Your task to perform on an android device: clear history in the chrome app Image 0: 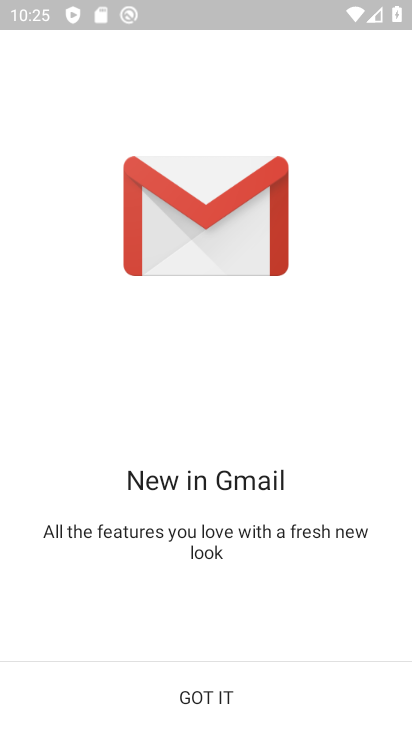
Step 0: press home button
Your task to perform on an android device: clear history in the chrome app Image 1: 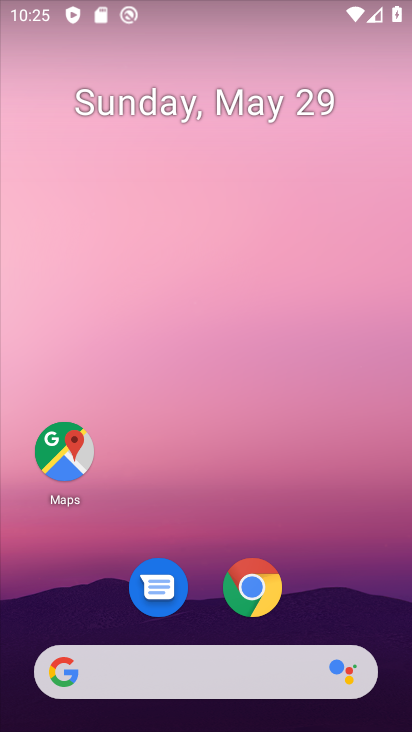
Step 1: click (264, 599)
Your task to perform on an android device: clear history in the chrome app Image 2: 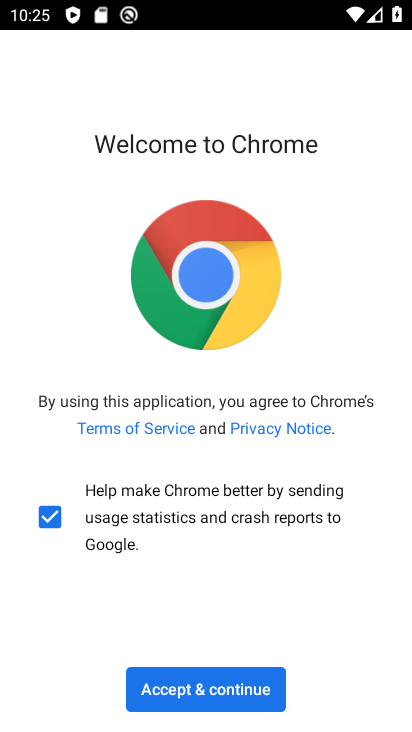
Step 2: click (214, 686)
Your task to perform on an android device: clear history in the chrome app Image 3: 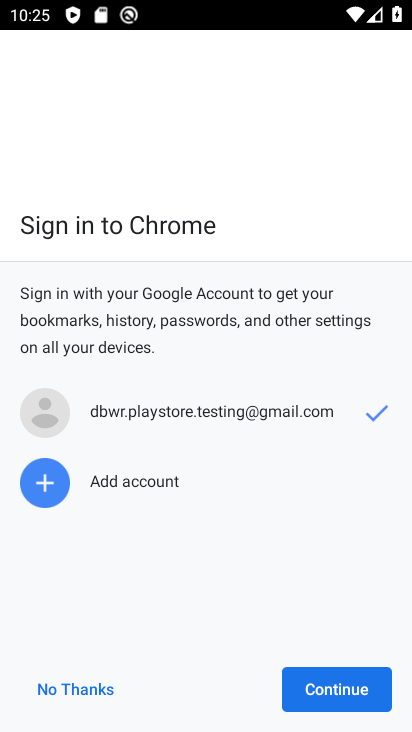
Step 3: click (361, 685)
Your task to perform on an android device: clear history in the chrome app Image 4: 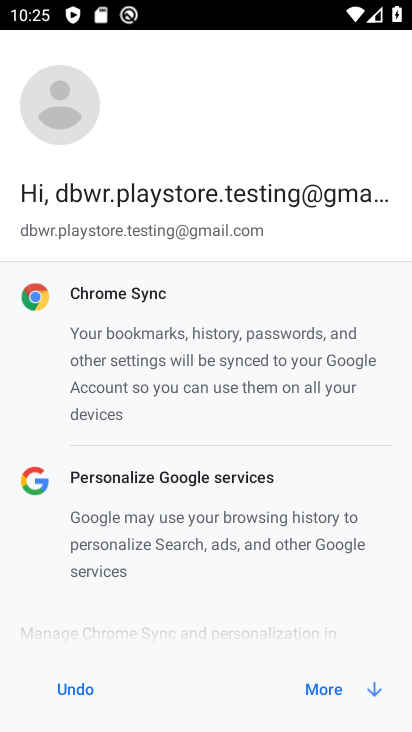
Step 4: click (361, 685)
Your task to perform on an android device: clear history in the chrome app Image 5: 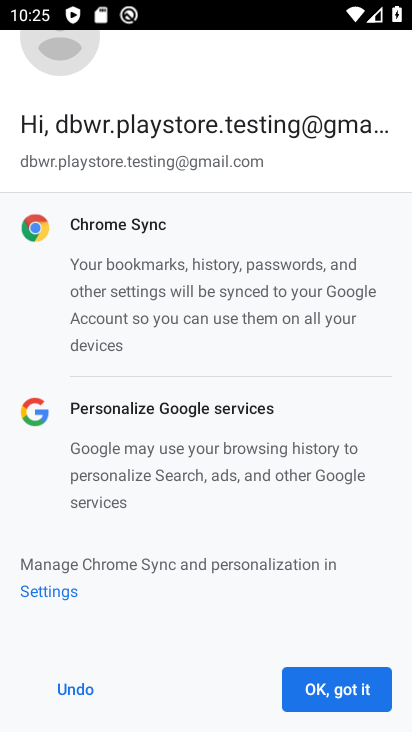
Step 5: click (361, 685)
Your task to perform on an android device: clear history in the chrome app Image 6: 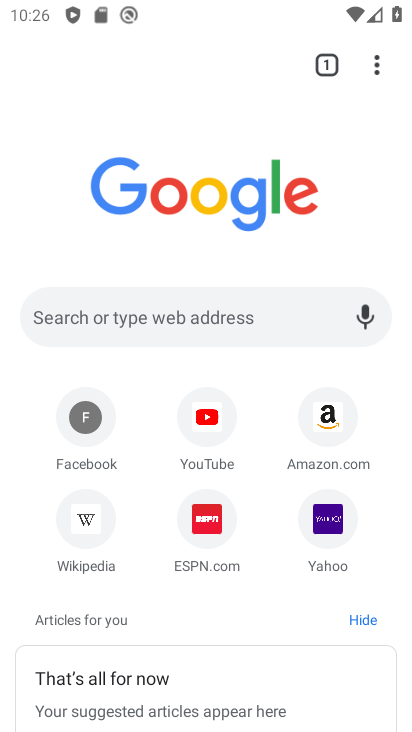
Step 6: click (381, 57)
Your task to perform on an android device: clear history in the chrome app Image 7: 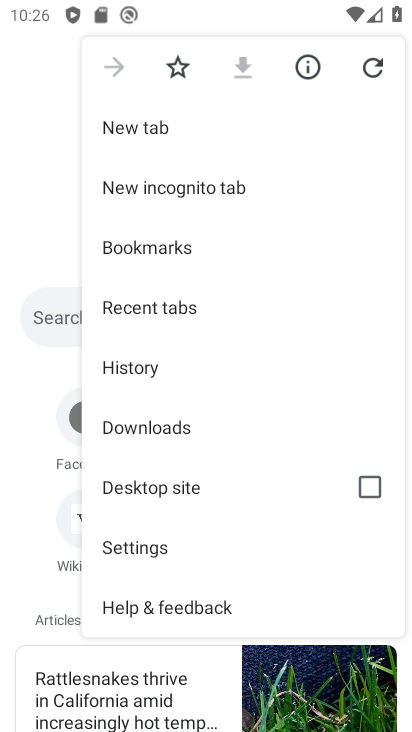
Step 7: click (190, 360)
Your task to perform on an android device: clear history in the chrome app Image 8: 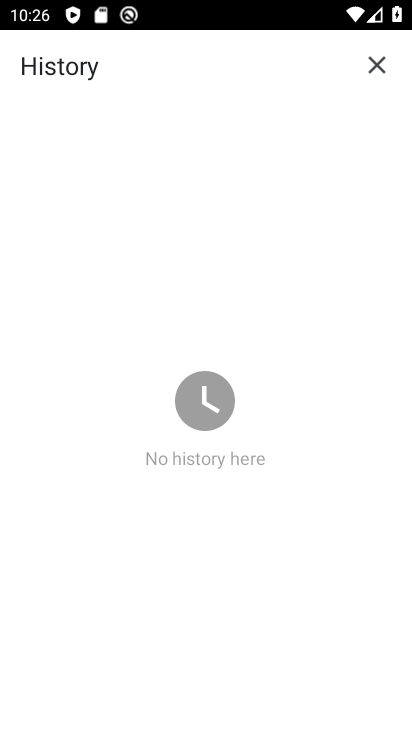
Step 8: task complete